Your task to perform on an android device: Go to accessibility settings Image 0: 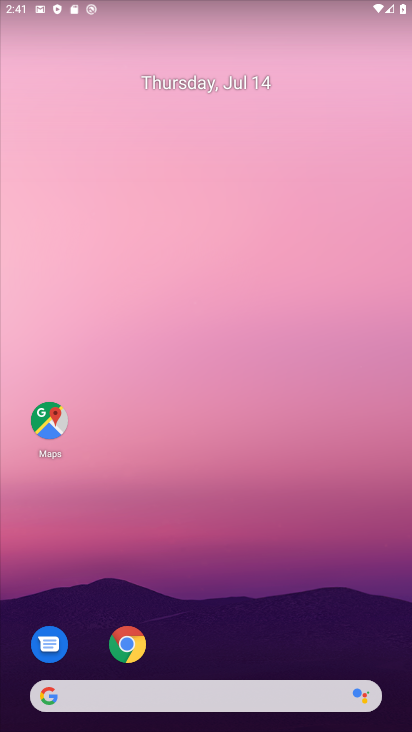
Step 0: drag from (241, 617) to (188, 156)
Your task to perform on an android device: Go to accessibility settings Image 1: 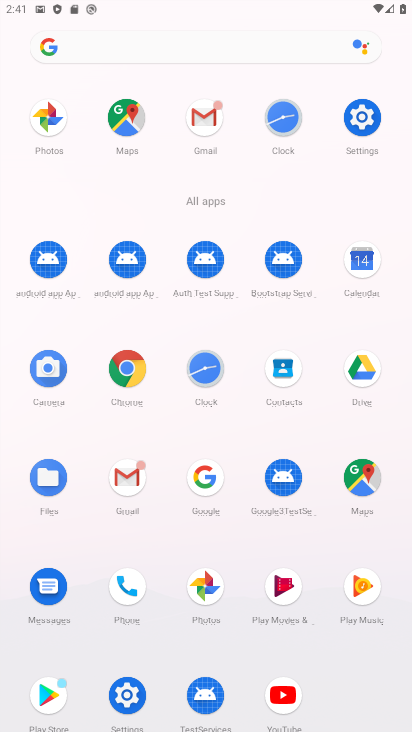
Step 1: click (373, 129)
Your task to perform on an android device: Go to accessibility settings Image 2: 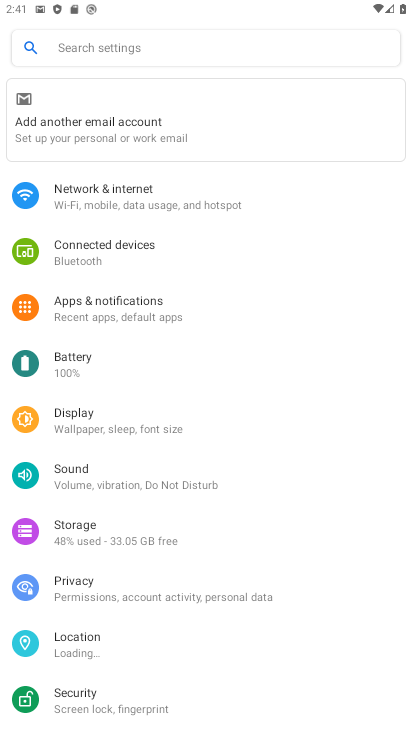
Step 2: drag from (125, 590) to (126, 333)
Your task to perform on an android device: Go to accessibility settings Image 3: 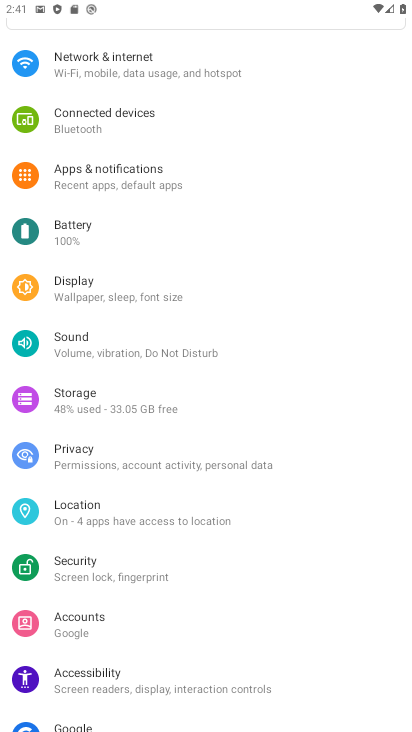
Step 3: click (90, 658)
Your task to perform on an android device: Go to accessibility settings Image 4: 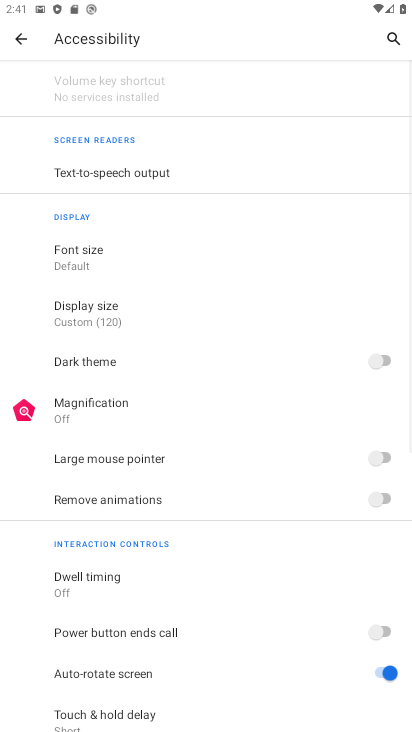
Step 4: task complete